Your task to perform on an android device: Is it going to rain today? Image 0: 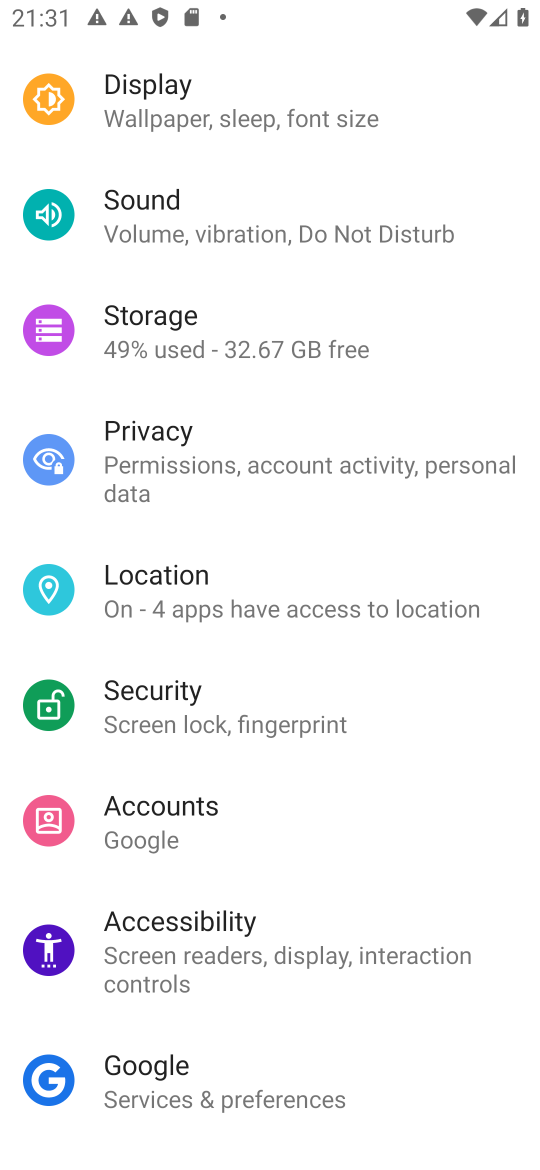
Step 0: press home button
Your task to perform on an android device: Is it going to rain today? Image 1: 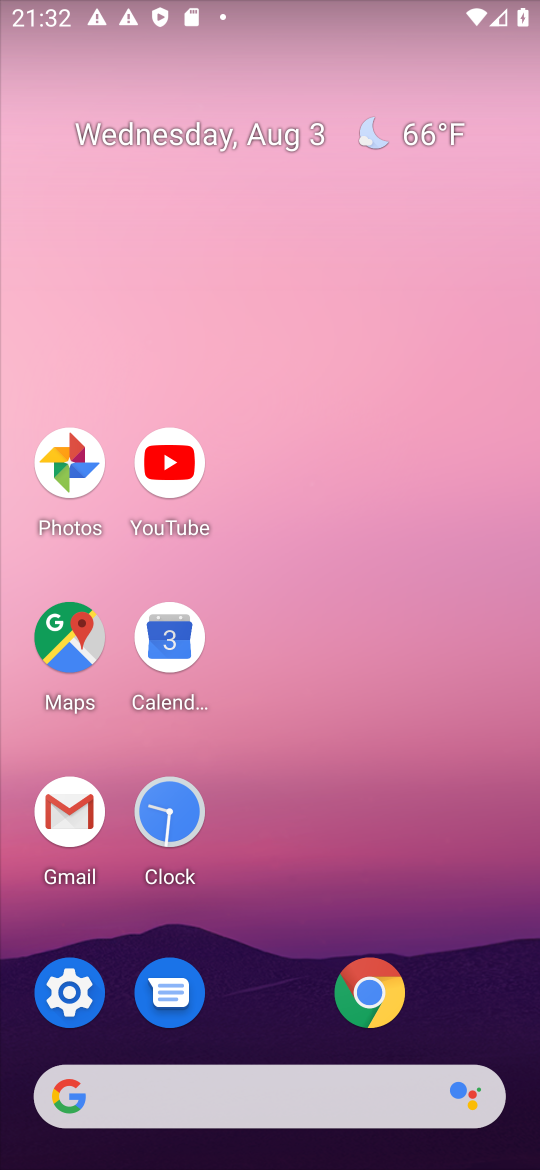
Step 1: click (242, 1071)
Your task to perform on an android device: Is it going to rain today? Image 2: 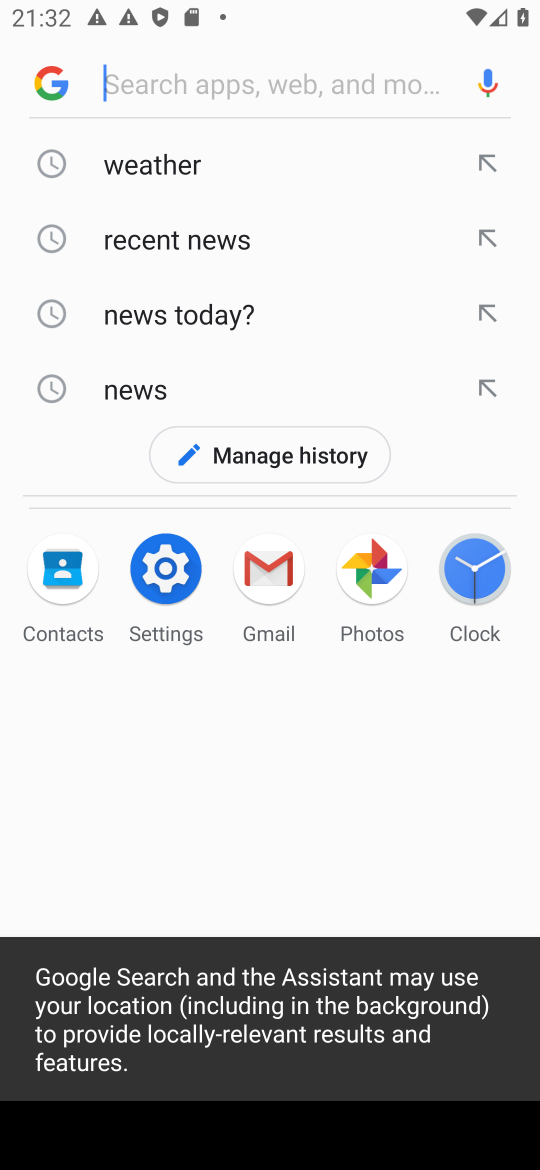
Step 2: click (161, 175)
Your task to perform on an android device: Is it going to rain today? Image 3: 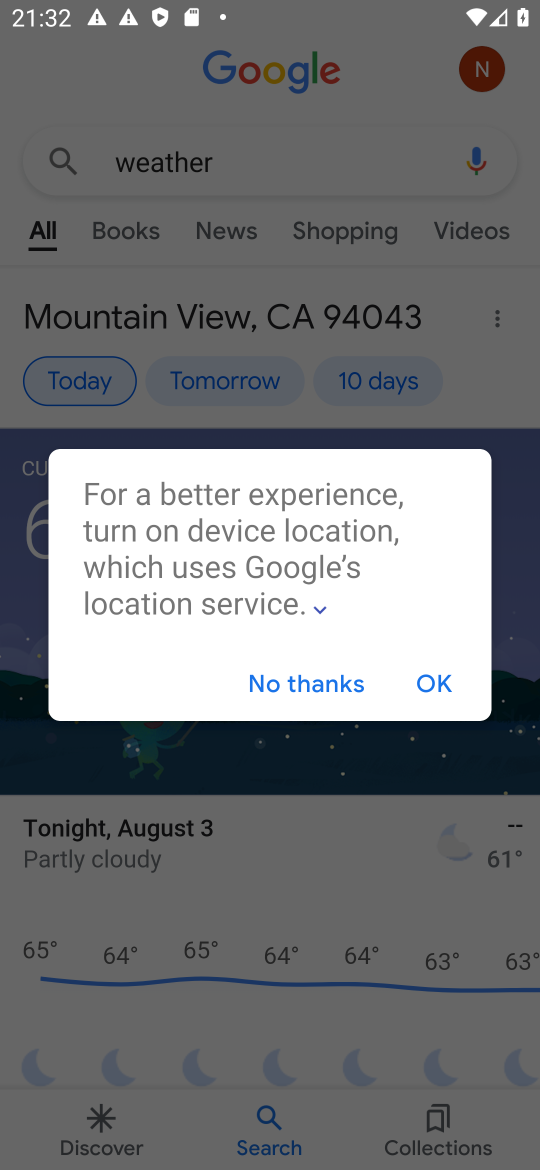
Step 3: click (428, 683)
Your task to perform on an android device: Is it going to rain today? Image 4: 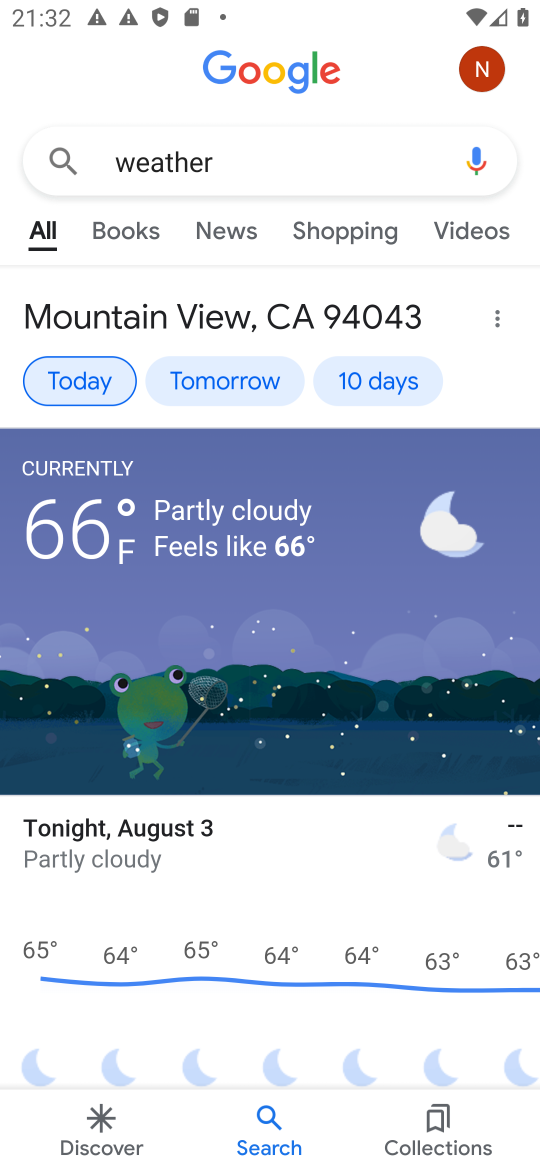
Step 4: task complete